Your task to perform on an android device: Find coffee shops on Maps Image 0: 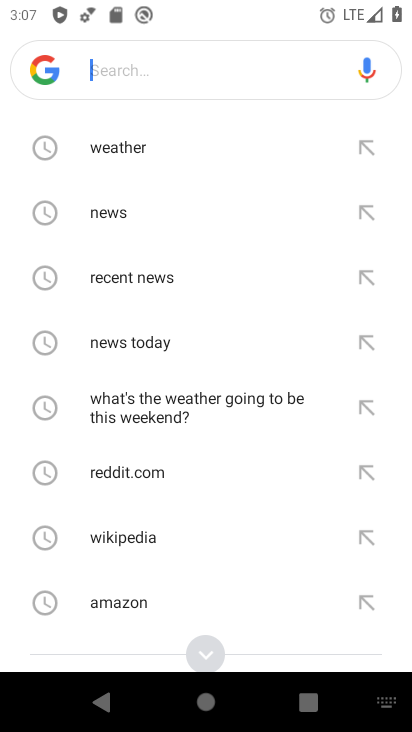
Step 0: press back button
Your task to perform on an android device: Find coffee shops on Maps Image 1: 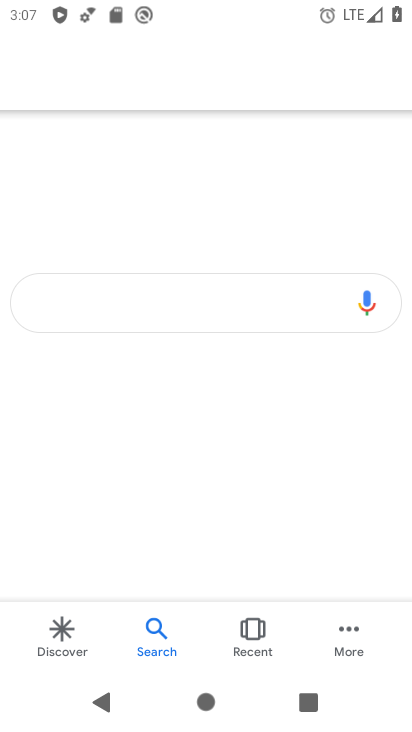
Step 1: press home button
Your task to perform on an android device: Find coffee shops on Maps Image 2: 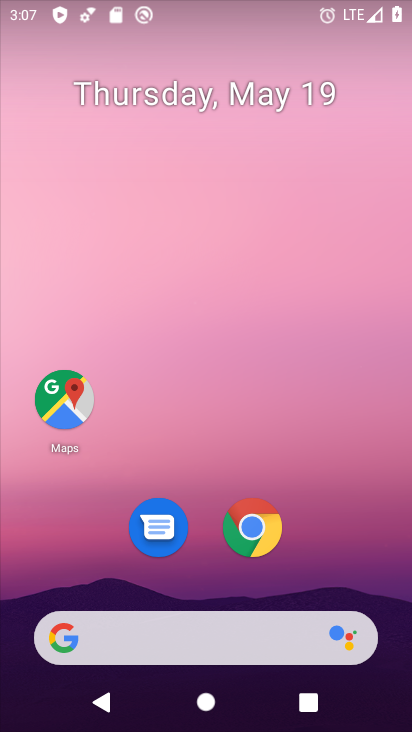
Step 2: click (74, 399)
Your task to perform on an android device: Find coffee shops on Maps Image 3: 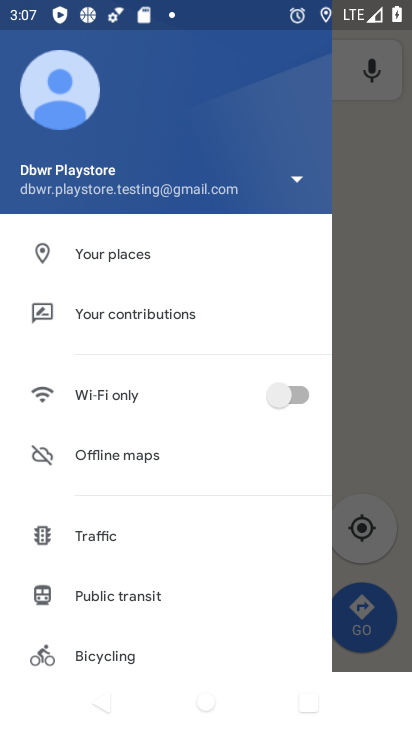
Step 3: press home button
Your task to perform on an android device: Find coffee shops on Maps Image 4: 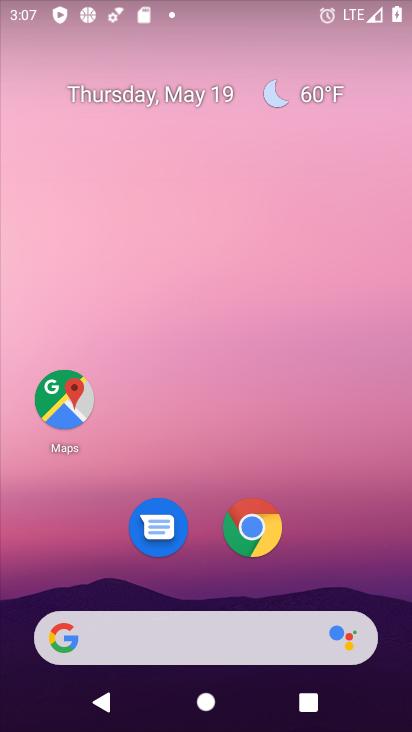
Step 4: click (60, 401)
Your task to perform on an android device: Find coffee shops on Maps Image 5: 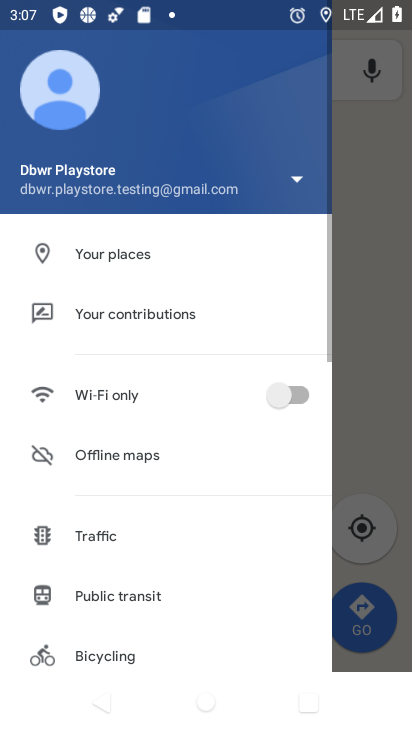
Step 5: click (373, 189)
Your task to perform on an android device: Find coffee shops on Maps Image 6: 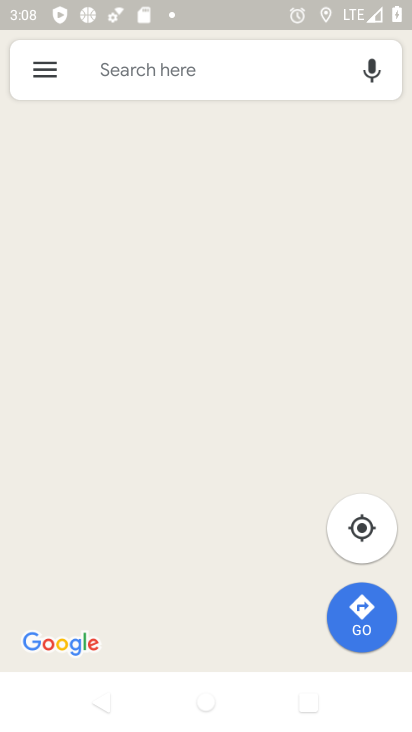
Step 6: click (134, 81)
Your task to perform on an android device: Find coffee shops on Maps Image 7: 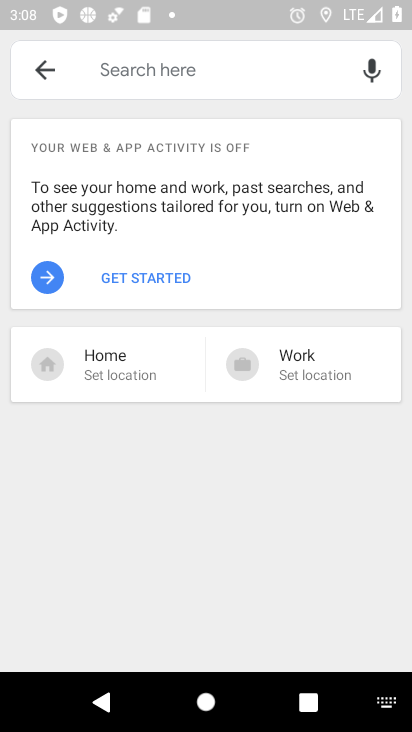
Step 7: type "coffee shops"
Your task to perform on an android device: Find coffee shops on Maps Image 8: 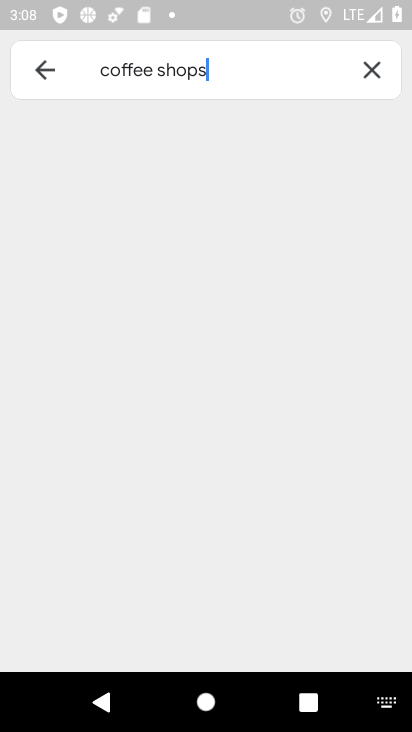
Step 8: task complete